Your task to perform on an android device: open app "eBay: The shopping marketplace" (install if not already installed), go to login, and select forgot password Image 0: 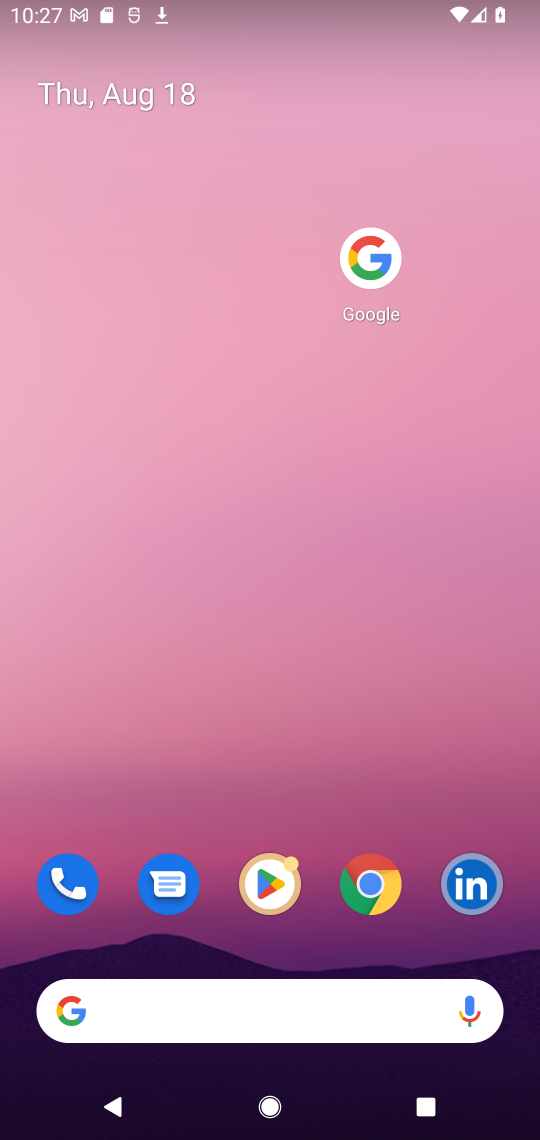
Step 0: click (298, 869)
Your task to perform on an android device: open app "eBay: The shopping marketplace" (install if not already installed), go to login, and select forgot password Image 1: 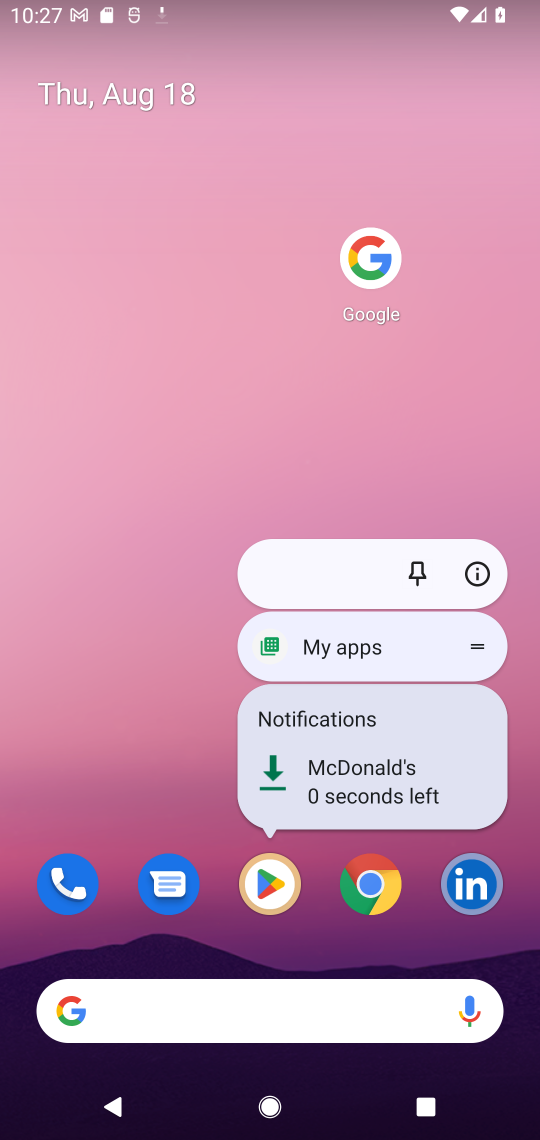
Step 1: click (272, 891)
Your task to perform on an android device: open app "eBay: The shopping marketplace" (install if not already installed), go to login, and select forgot password Image 2: 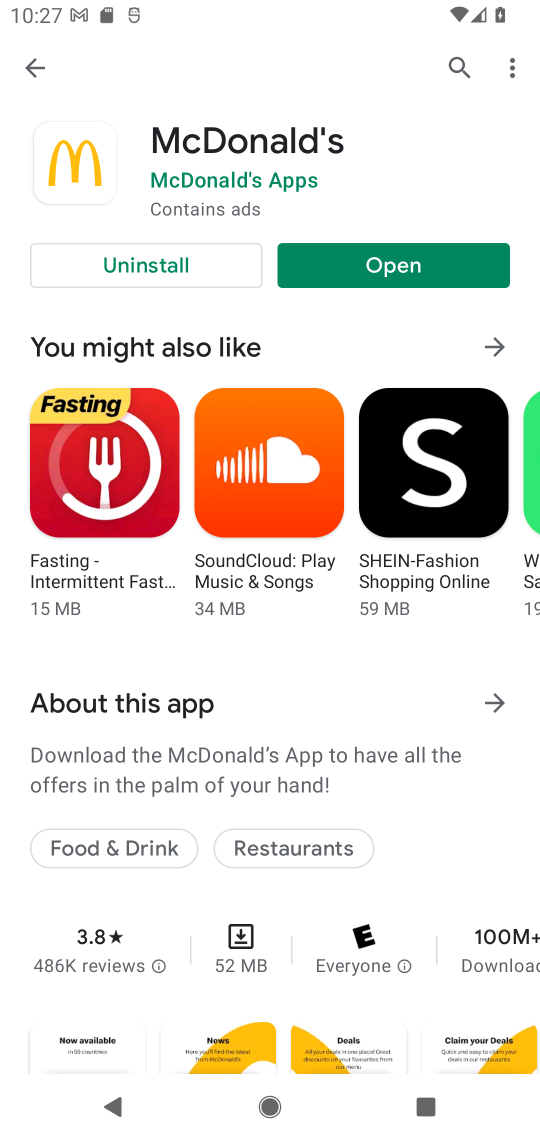
Step 2: click (456, 75)
Your task to perform on an android device: open app "eBay: The shopping marketplace" (install if not already installed), go to login, and select forgot password Image 3: 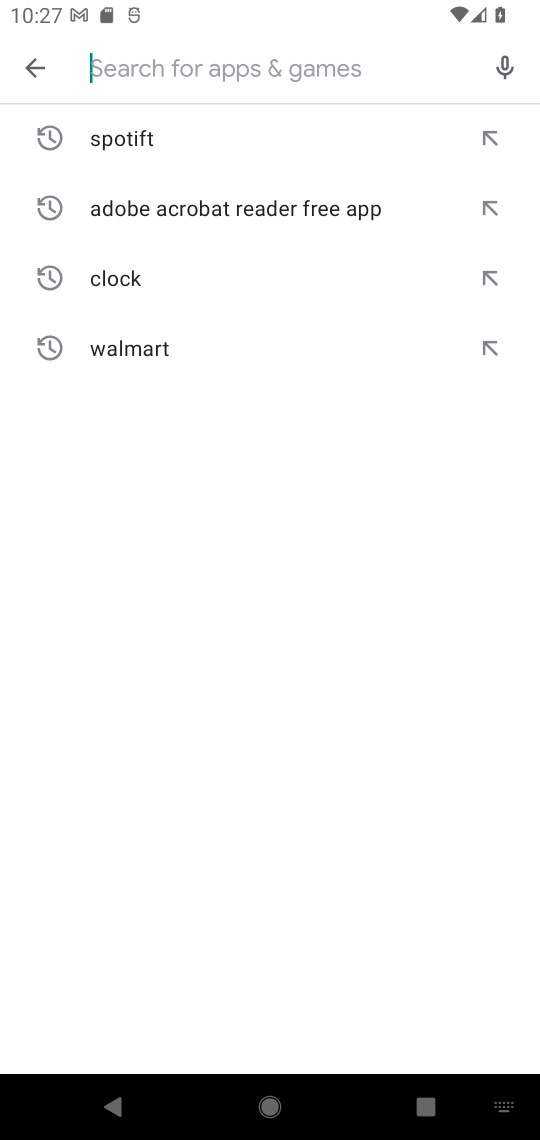
Step 3: type "ebay"
Your task to perform on an android device: open app "eBay: The shopping marketplace" (install if not already installed), go to login, and select forgot password Image 4: 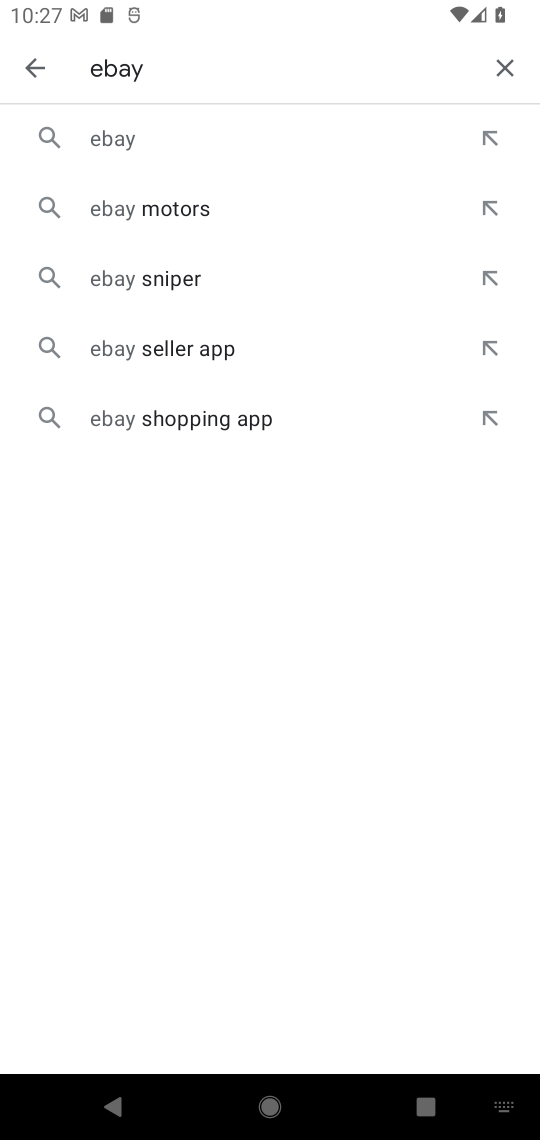
Step 4: click (201, 130)
Your task to perform on an android device: open app "eBay: The shopping marketplace" (install if not already installed), go to login, and select forgot password Image 5: 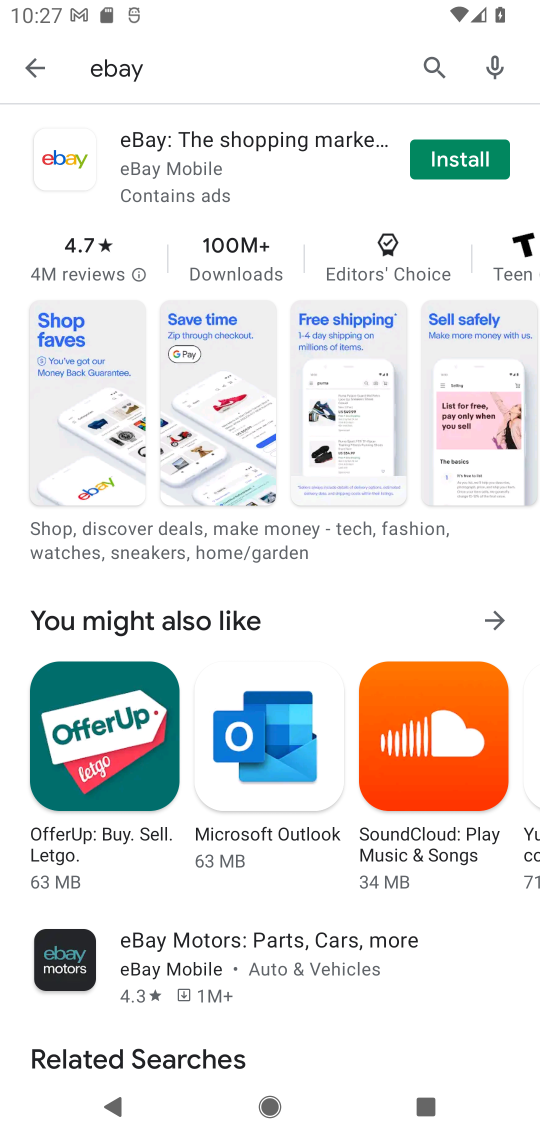
Step 5: click (444, 143)
Your task to perform on an android device: open app "eBay: The shopping marketplace" (install if not already installed), go to login, and select forgot password Image 6: 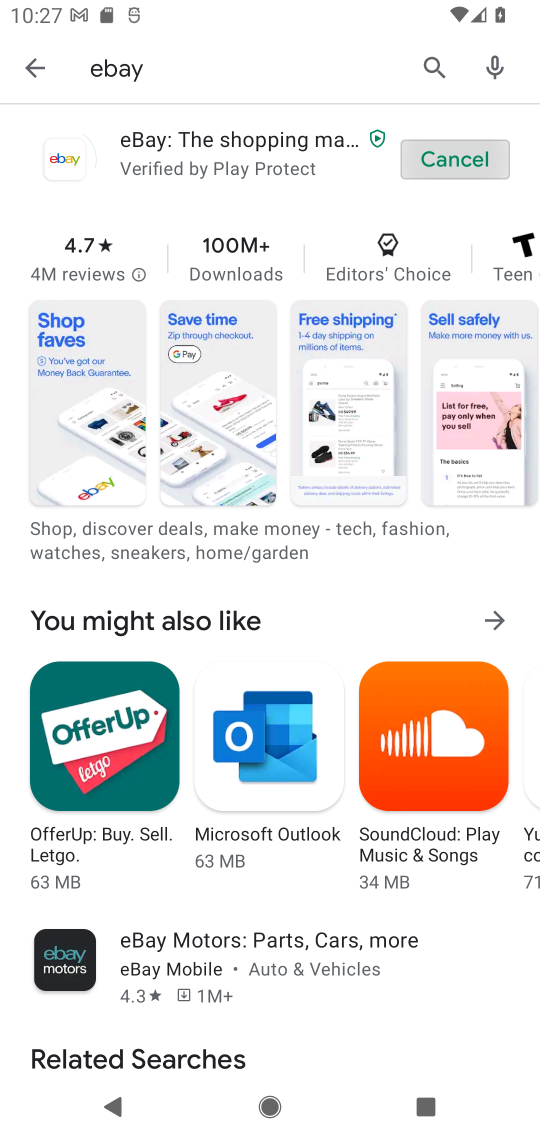
Step 6: task complete